Your task to perform on an android device: check out phone information Image 0: 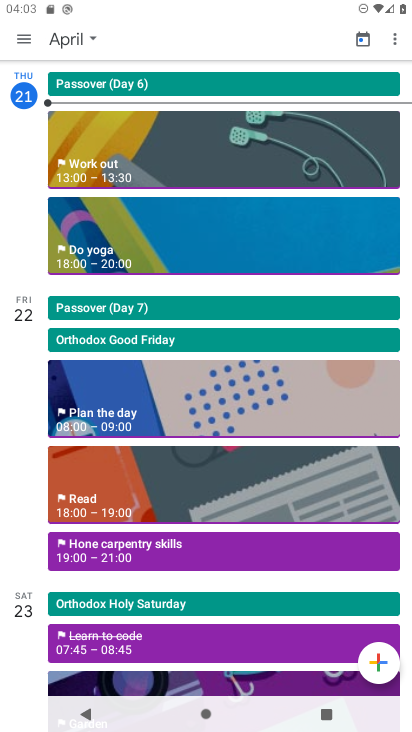
Step 0: press home button
Your task to perform on an android device: check out phone information Image 1: 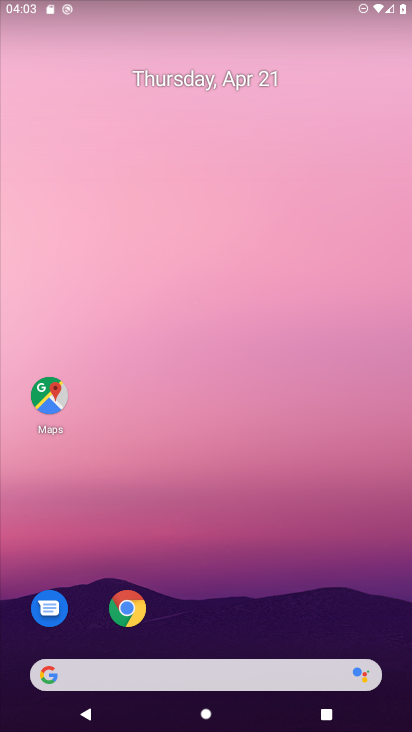
Step 1: drag from (224, 610) to (248, 264)
Your task to perform on an android device: check out phone information Image 2: 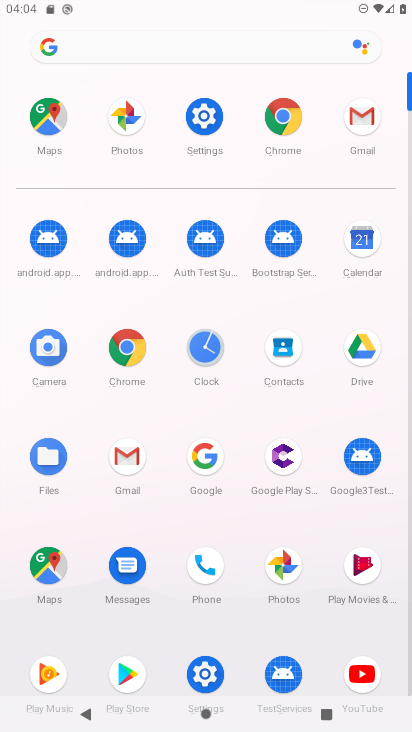
Step 2: click (202, 667)
Your task to perform on an android device: check out phone information Image 3: 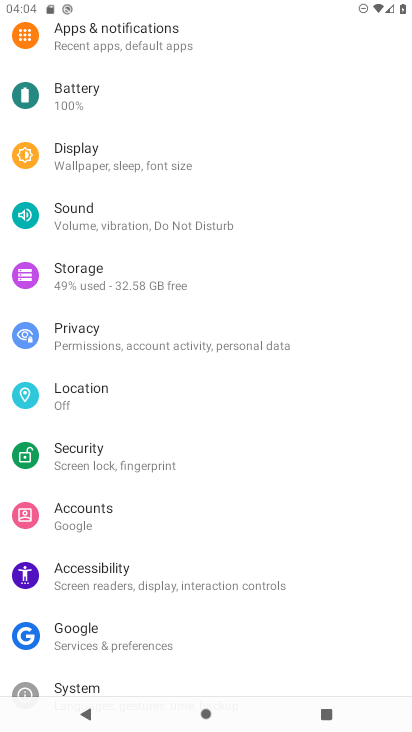
Step 3: drag from (189, 610) to (294, 134)
Your task to perform on an android device: check out phone information Image 4: 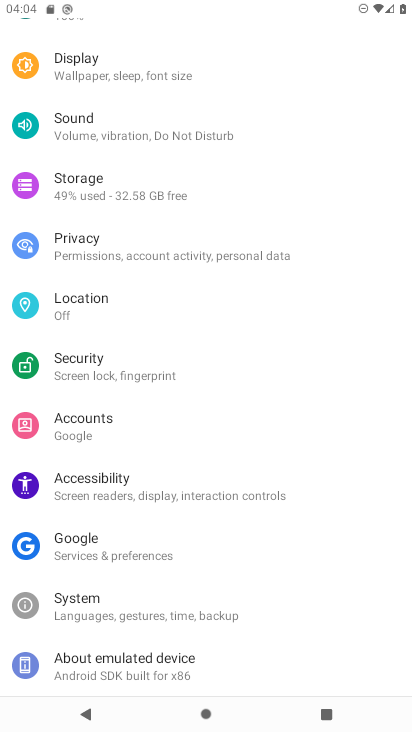
Step 4: click (107, 665)
Your task to perform on an android device: check out phone information Image 5: 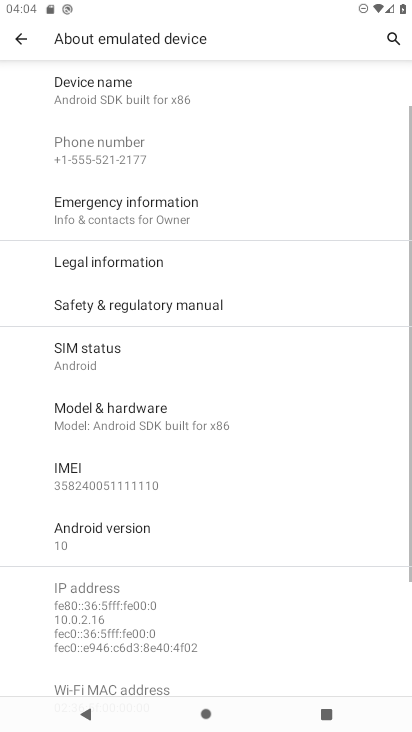
Step 5: task complete